Your task to perform on an android device: View the shopping cart on walmart.com. Image 0: 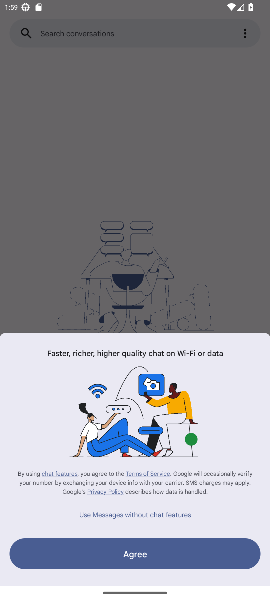
Step 0: press home button
Your task to perform on an android device: View the shopping cart on walmart.com. Image 1: 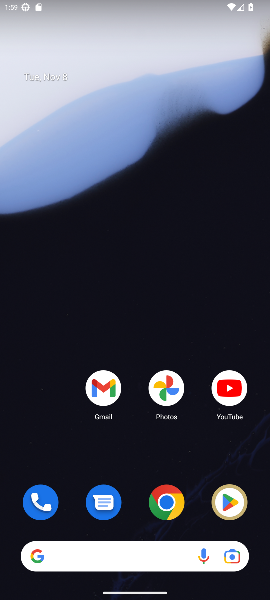
Step 1: drag from (151, 539) to (154, 163)
Your task to perform on an android device: View the shopping cart on walmart.com. Image 2: 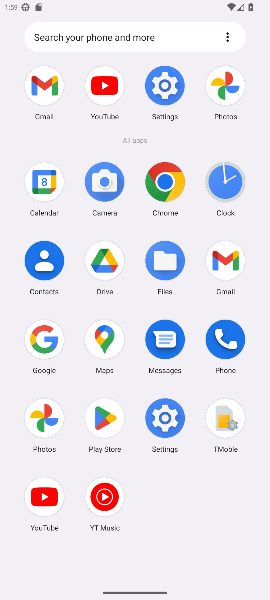
Step 2: click (40, 334)
Your task to perform on an android device: View the shopping cart on walmart.com. Image 3: 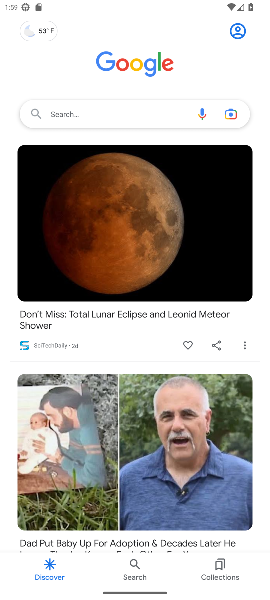
Step 3: click (149, 102)
Your task to perform on an android device: View the shopping cart on walmart.com. Image 4: 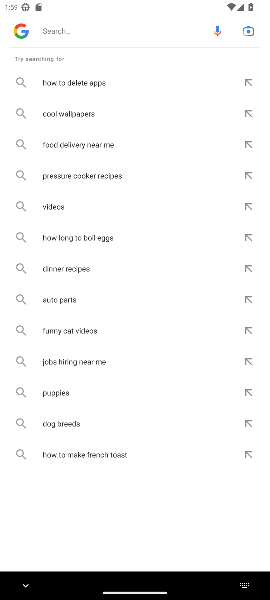
Step 4: type "walmart "
Your task to perform on an android device: View the shopping cart on walmart.com. Image 5: 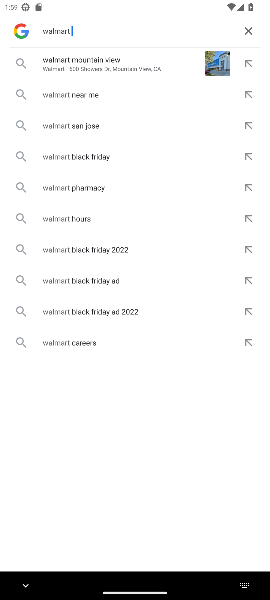
Step 5: click (102, 63)
Your task to perform on an android device: View the shopping cart on walmart.com. Image 6: 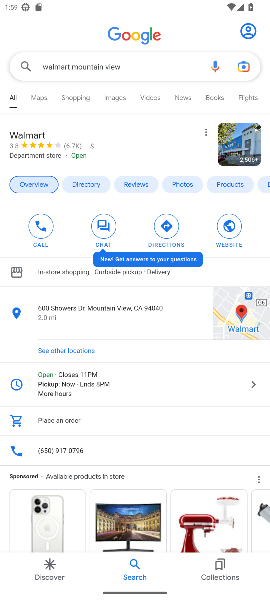
Step 6: drag from (152, 497) to (174, 247)
Your task to perform on an android device: View the shopping cart on walmart.com. Image 7: 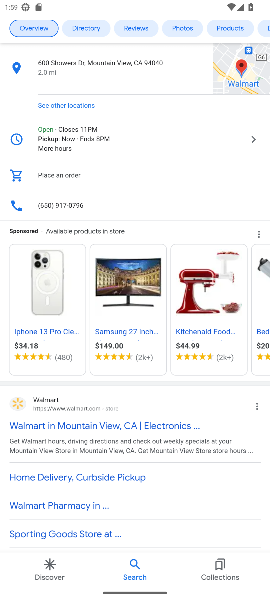
Step 7: click (21, 407)
Your task to perform on an android device: View the shopping cart on walmart.com. Image 8: 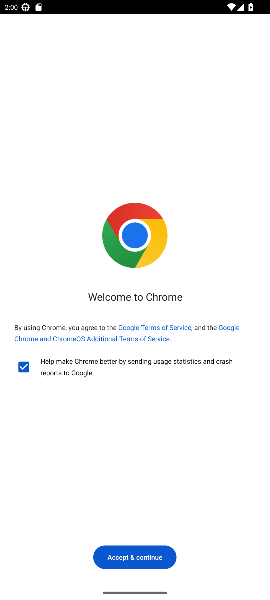
Step 8: click (136, 552)
Your task to perform on an android device: View the shopping cart on walmart.com. Image 9: 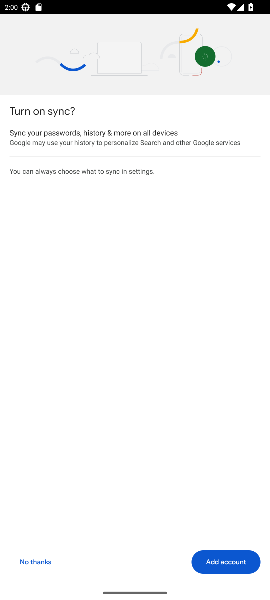
Step 9: click (27, 559)
Your task to perform on an android device: View the shopping cart on walmart.com. Image 10: 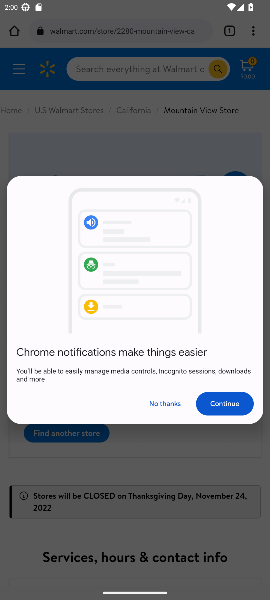
Step 10: click (223, 395)
Your task to perform on an android device: View the shopping cart on walmart.com. Image 11: 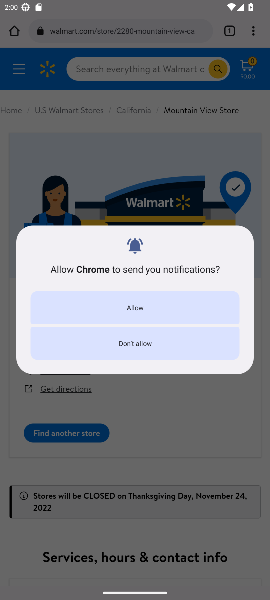
Step 11: click (136, 308)
Your task to perform on an android device: View the shopping cart on walmart.com. Image 12: 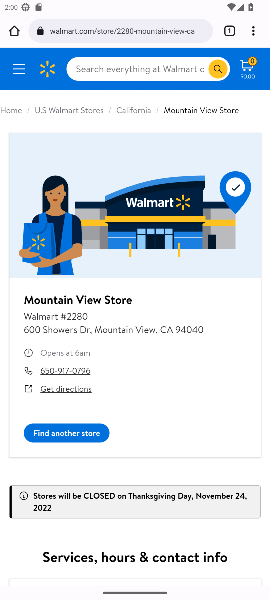
Step 12: click (247, 65)
Your task to perform on an android device: View the shopping cart on walmart.com. Image 13: 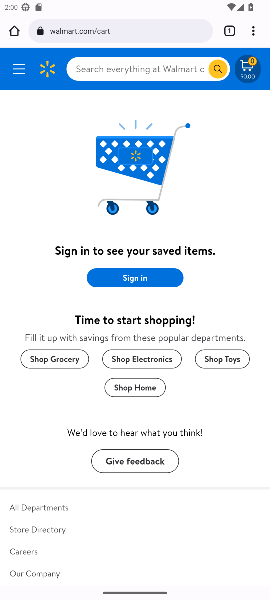
Step 13: task complete